Your task to perform on an android device: turn on location history Image 0: 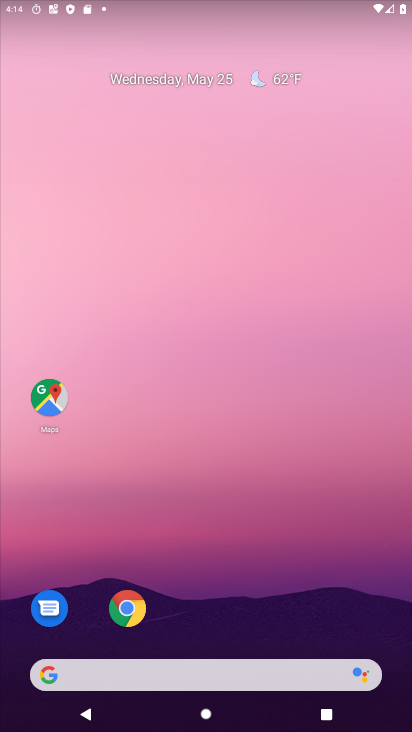
Step 0: drag from (248, 581) to (156, 60)
Your task to perform on an android device: turn on location history Image 1: 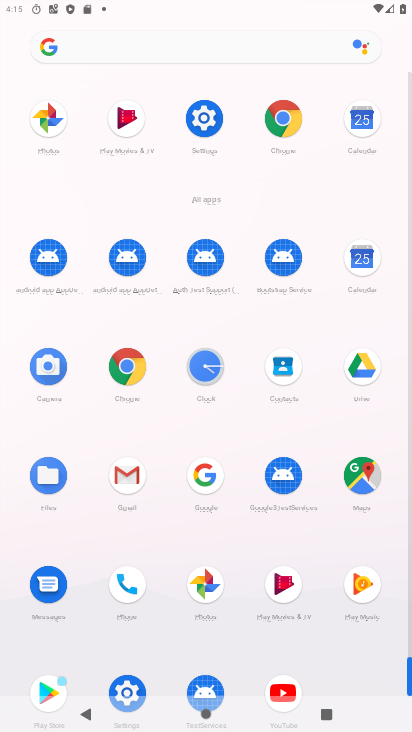
Step 1: click (205, 117)
Your task to perform on an android device: turn on location history Image 2: 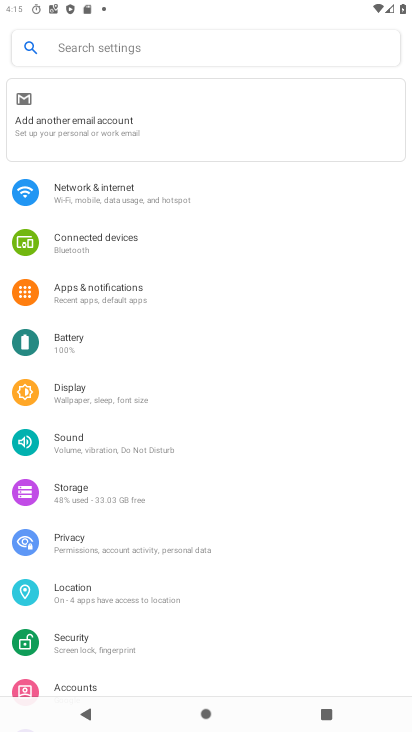
Step 2: click (84, 588)
Your task to perform on an android device: turn on location history Image 3: 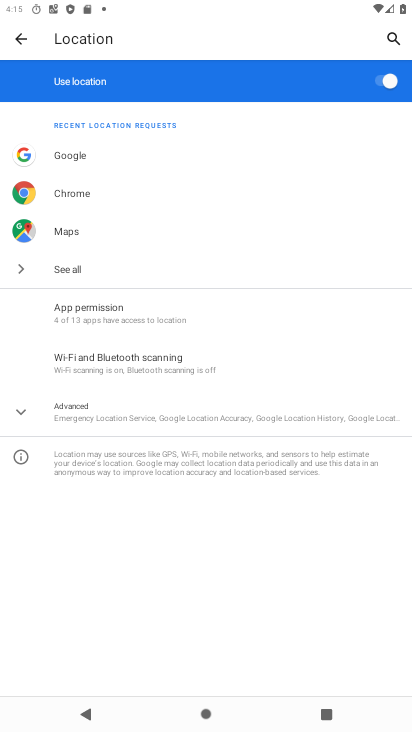
Step 3: click (115, 422)
Your task to perform on an android device: turn on location history Image 4: 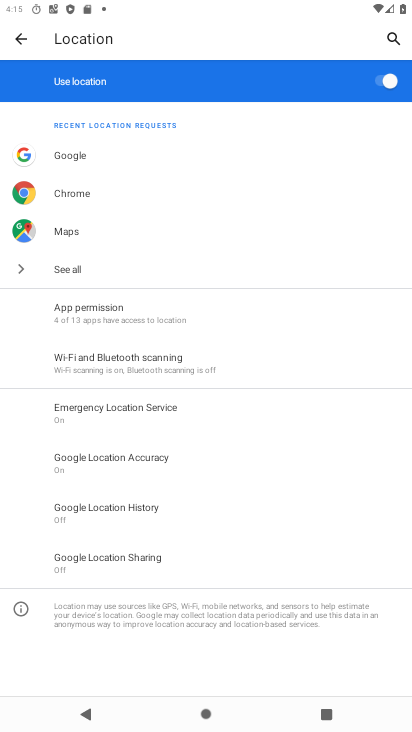
Step 4: click (129, 514)
Your task to perform on an android device: turn on location history Image 5: 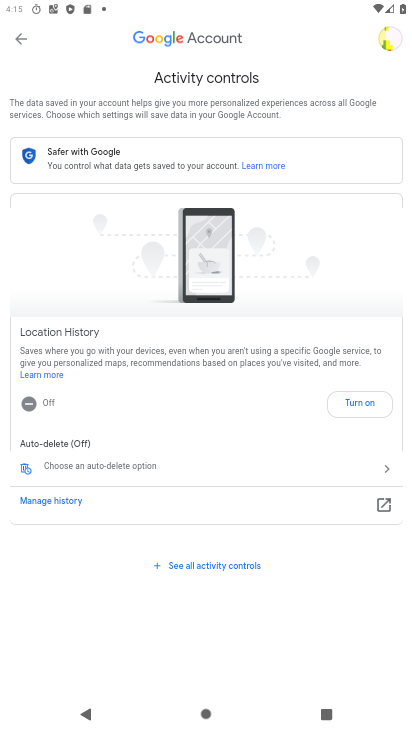
Step 5: click (365, 405)
Your task to perform on an android device: turn on location history Image 6: 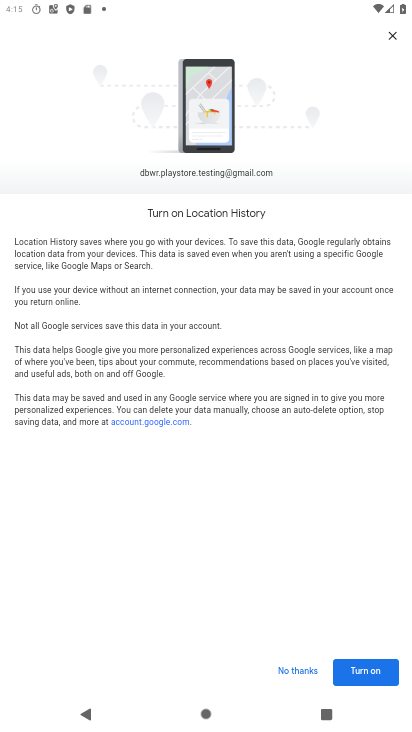
Step 6: click (366, 670)
Your task to perform on an android device: turn on location history Image 7: 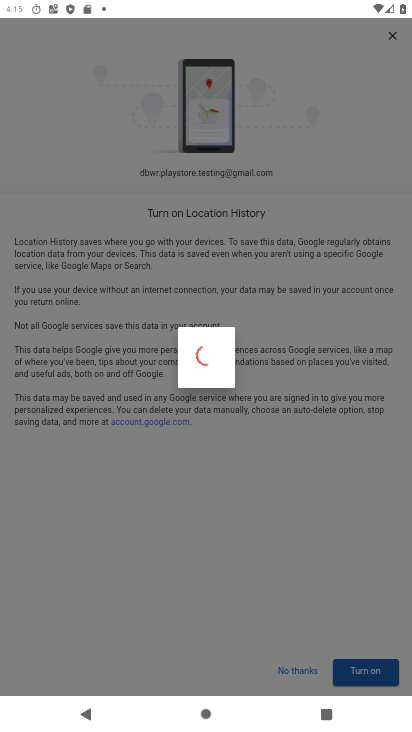
Step 7: click (366, 670)
Your task to perform on an android device: turn on location history Image 8: 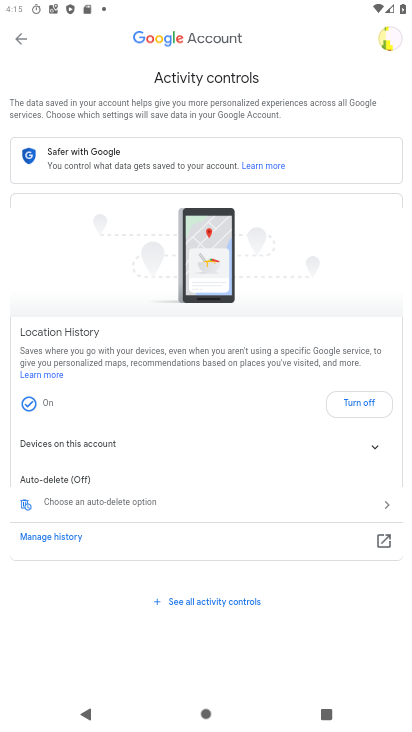
Step 8: task complete